Your task to perform on an android device: Open calendar and show me the first week of next month Image 0: 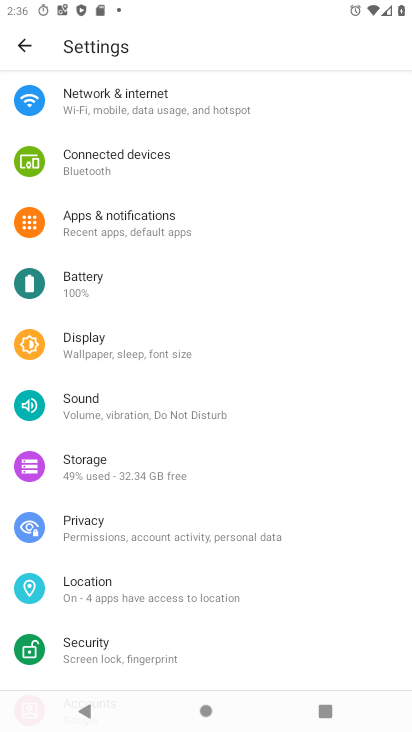
Step 0: drag from (234, 578) to (264, 83)
Your task to perform on an android device: Open calendar and show me the first week of next month Image 1: 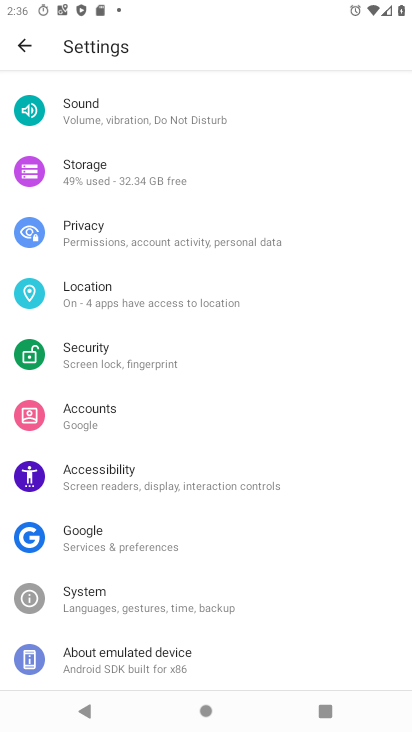
Step 1: drag from (217, 291) to (379, 422)
Your task to perform on an android device: Open calendar and show me the first week of next month Image 2: 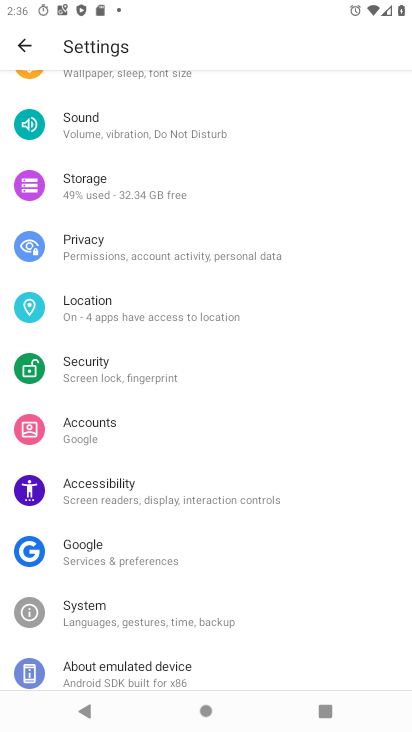
Step 2: press home button
Your task to perform on an android device: Open calendar and show me the first week of next month Image 3: 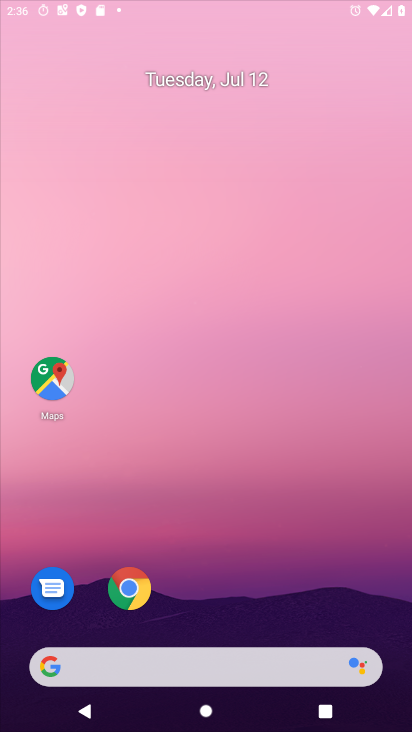
Step 3: drag from (213, 576) to (234, 61)
Your task to perform on an android device: Open calendar and show me the first week of next month Image 4: 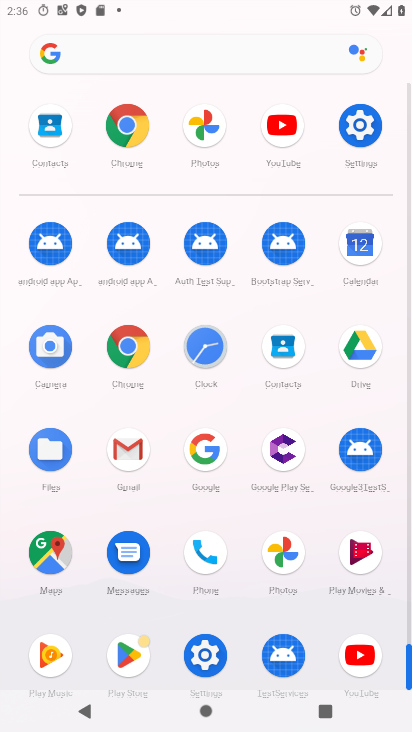
Step 4: click (360, 242)
Your task to perform on an android device: Open calendar and show me the first week of next month Image 5: 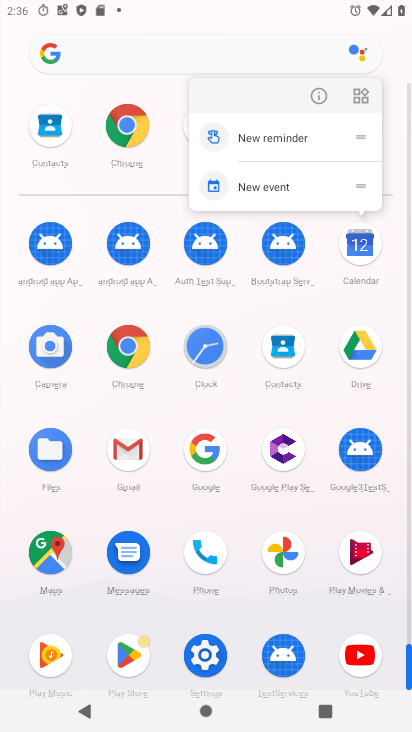
Step 5: click (316, 95)
Your task to perform on an android device: Open calendar and show me the first week of next month Image 6: 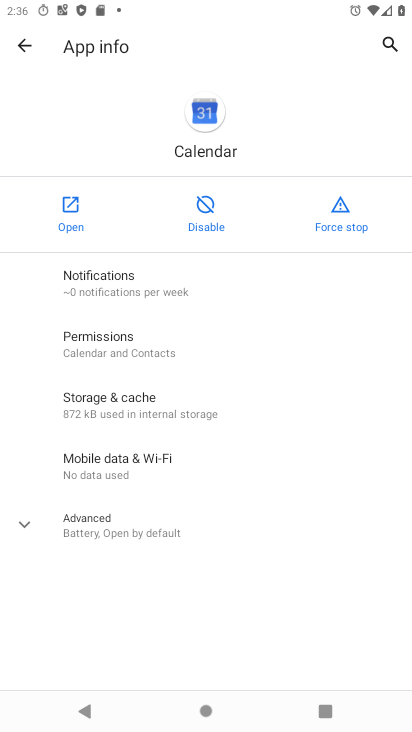
Step 6: click (67, 217)
Your task to perform on an android device: Open calendar and show me the first week of next month Image 7: 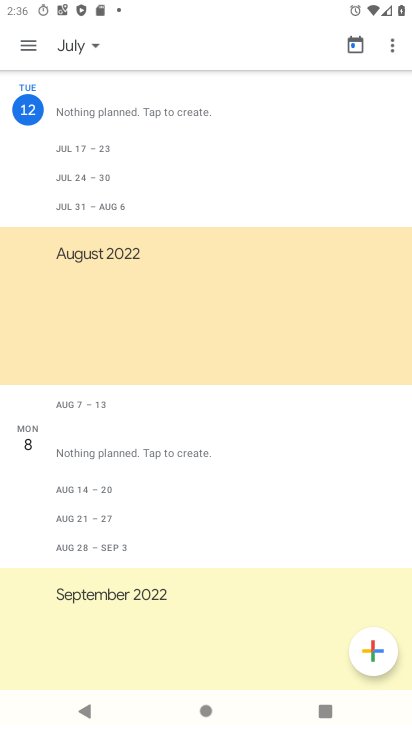
Step 7: drag from (259, 576) to (261, 333)
Your task to perform on an android device: Open calendar and show me the first week of next month Image 8: 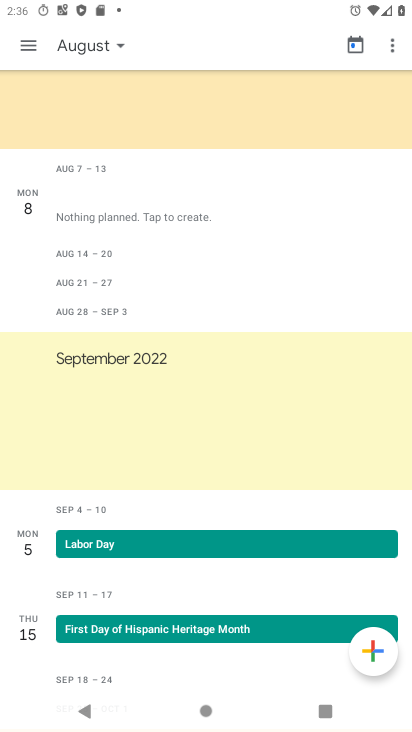
Step 8: click (97, 54)
Your task to perform on an android device: Open calendar and show me the first week of next month Image 9: 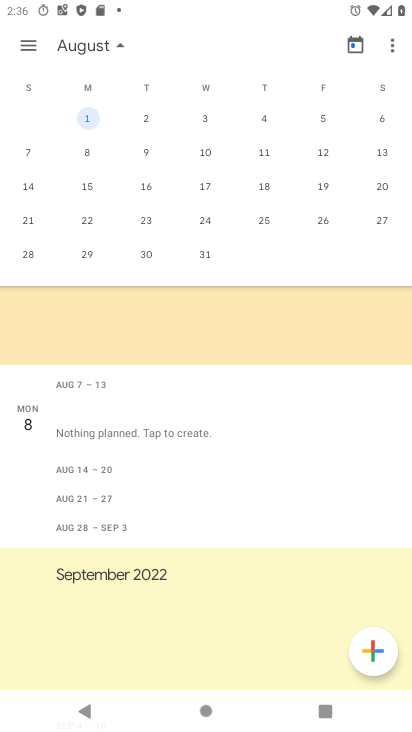
Step 9: drag from (343, 201) to (0, 217)
Your task to perform on an android device: Open calendar and show me the first week of next month Image 10: 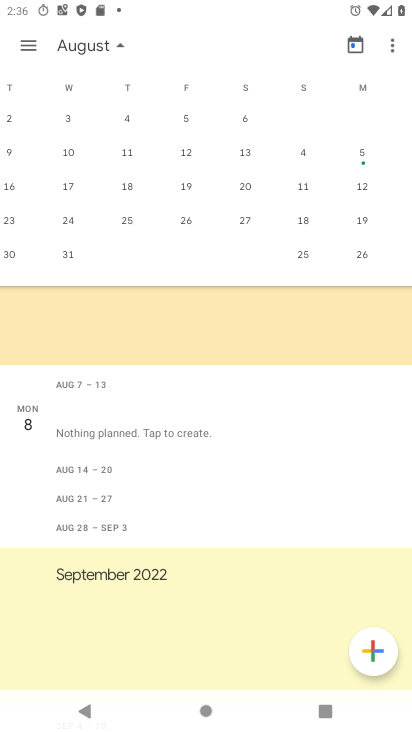
Step 10: drag from (38, 211) to (407, 191)
Your task to perform on an android device: Open calendar and show me the first week of next month Image 11: 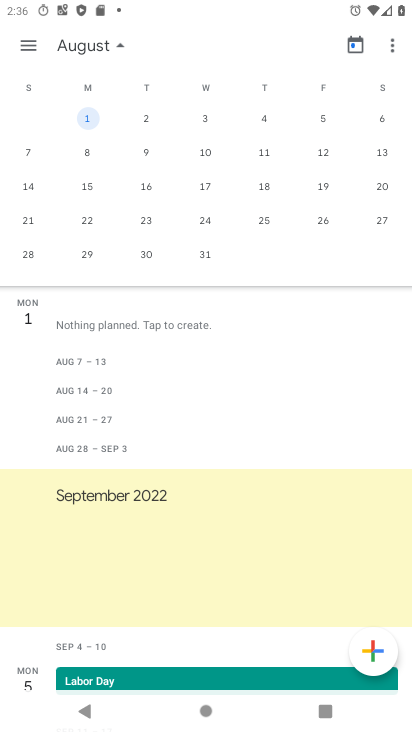
Step 11: click (320, 112)
Your task to perform on an android device: Open calendar and show me the first week of next month Image 12: 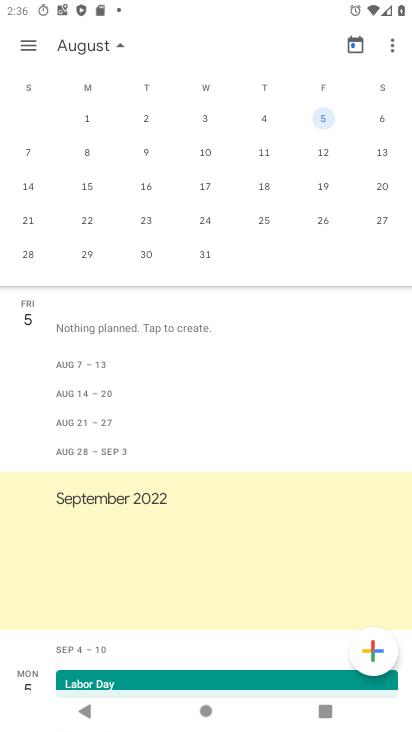
Step 12: task complete